Your task to perform on an android device: turn off location Image 0: 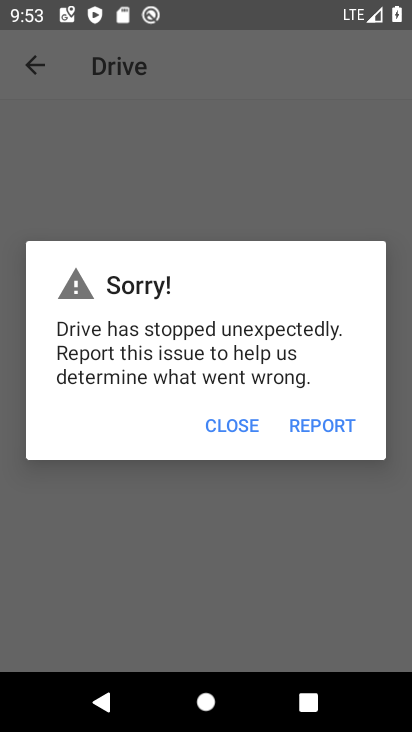
Step 0: press home button
Your task to perform on an android device: turn off location Image 1: 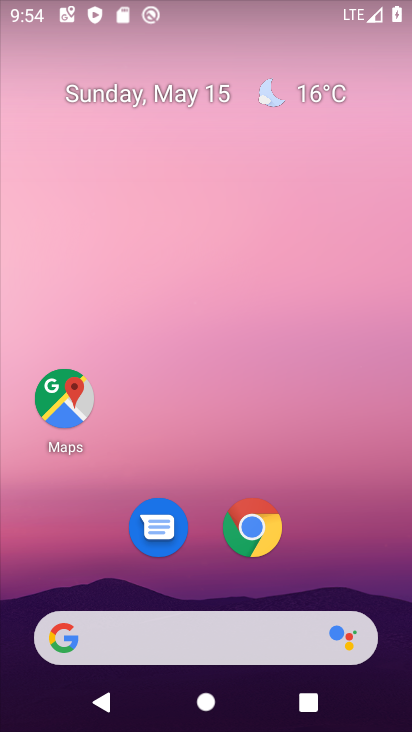
Step 1: drag from (354, 144) to (389, 5)
Your task to perform on an android device: turn off location Image 2: 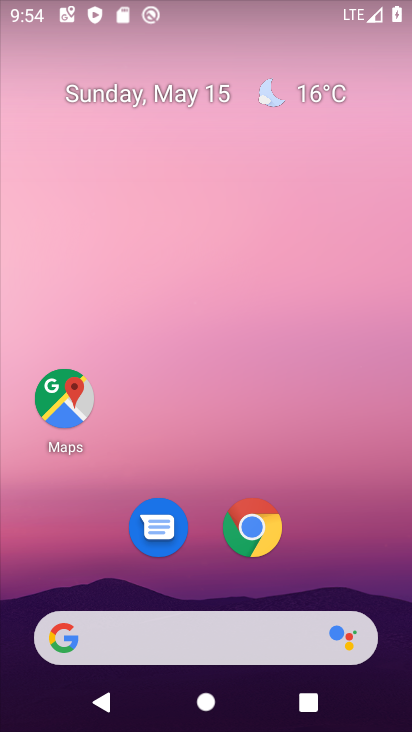
Step 2: drag from (333, 586) to (397, 36)
Your task to perform on an android device: turn off location Image 3: 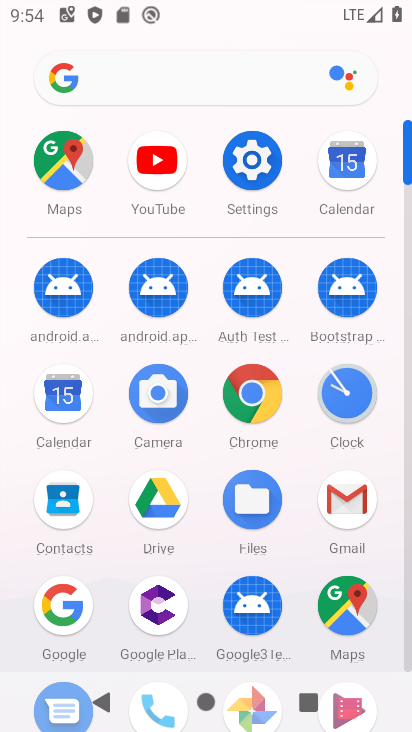
Step 3: click (254, 164)
Your task to perform on an android device: turn off location Image 4: 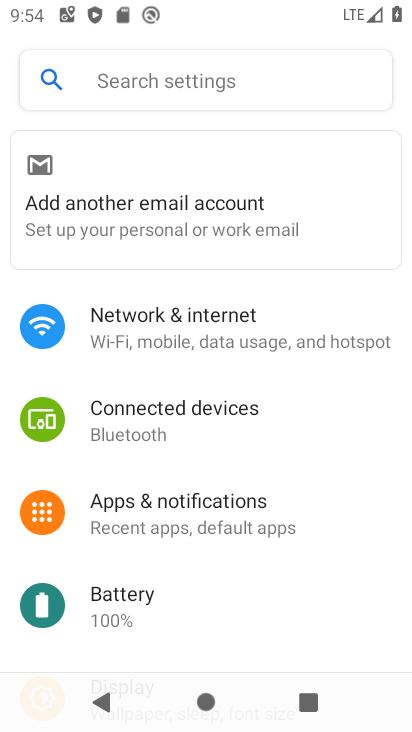
Step 4: drag from (293, 573) to (309, 191)
Your task to perform on an android device: turn off location Image 5: 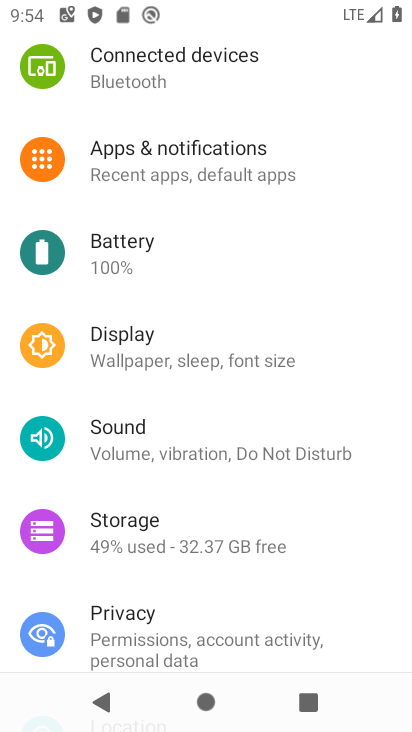
Step 5: drag from (311, 523) to (317, 186)
Your task to perform on an android device: turn off location Image 6: 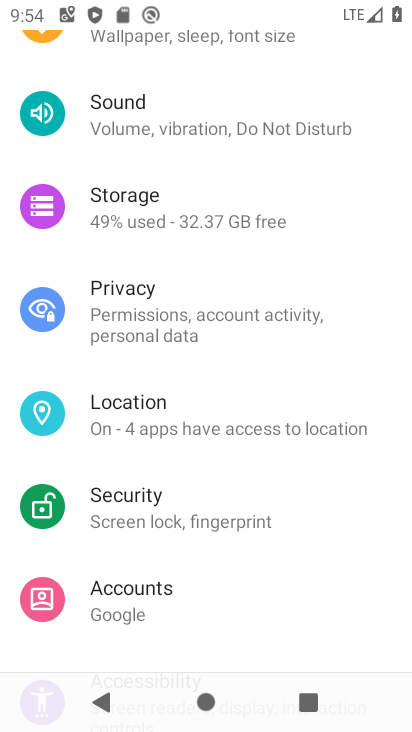
Step 6: click (99, 418)
Your task to perform on an android device: turn off location Image 7: 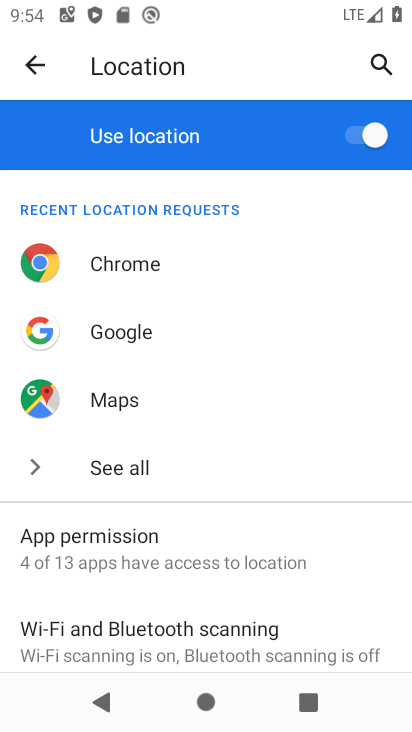
Step 7: click (377, 141)
Your task to perform on an android device: turn off location Image 8: 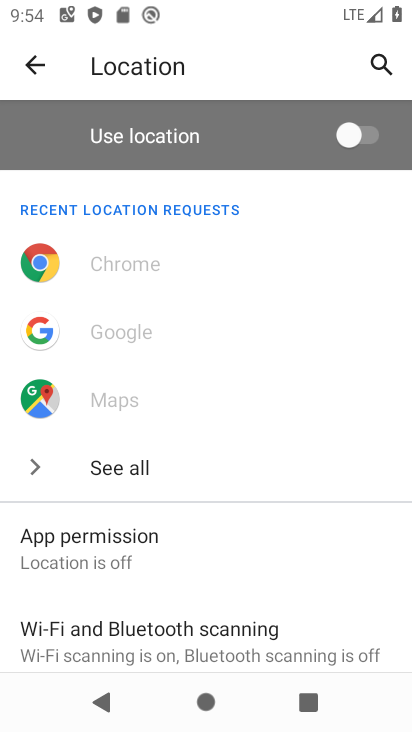
Step 8: task complete